Your task to perform on an android device: open device folders in google photos Image 0: 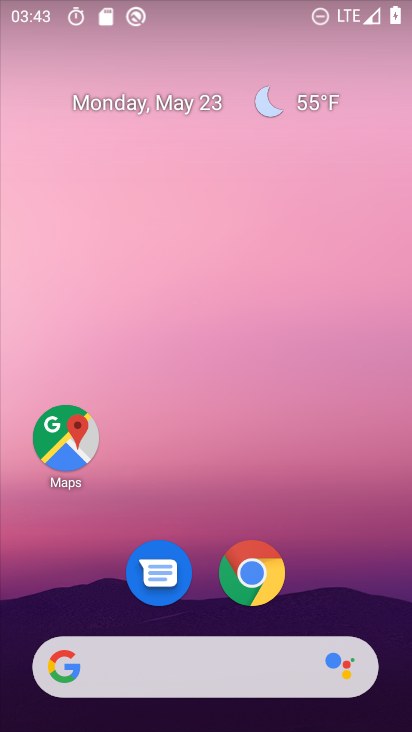
Step 0: drag from (332, 578) to (282, 17)
Your task to perform on an android device: open device folders in google photos Image 1: 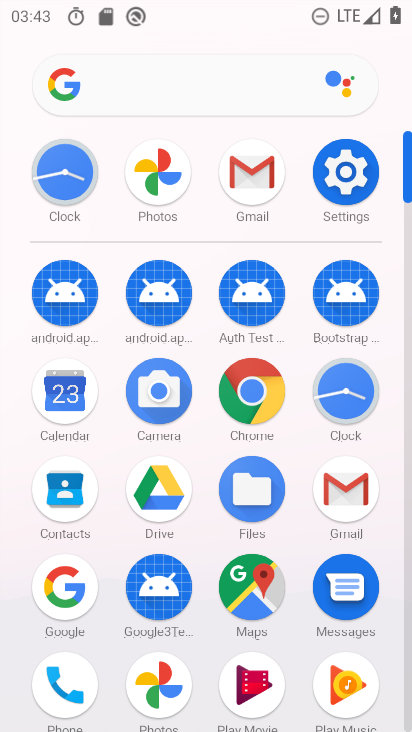
Step 1: click (156, 189)
Your task to perform on an android device: open device folders in google photos Image 2: 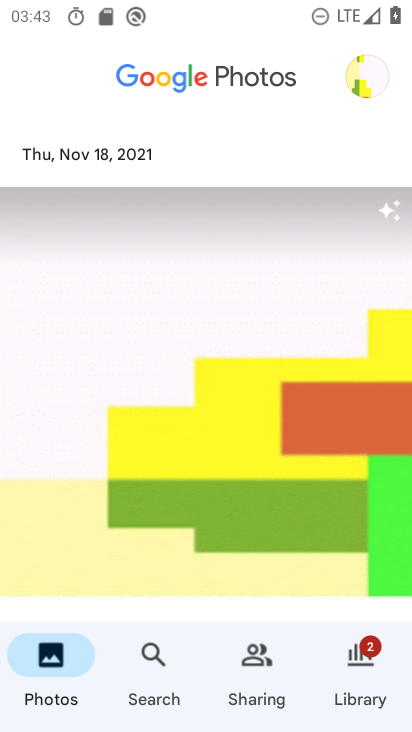
Step 2: click (364, 69)
Your task to perform on an android device: open device folders in google photos Image 3: 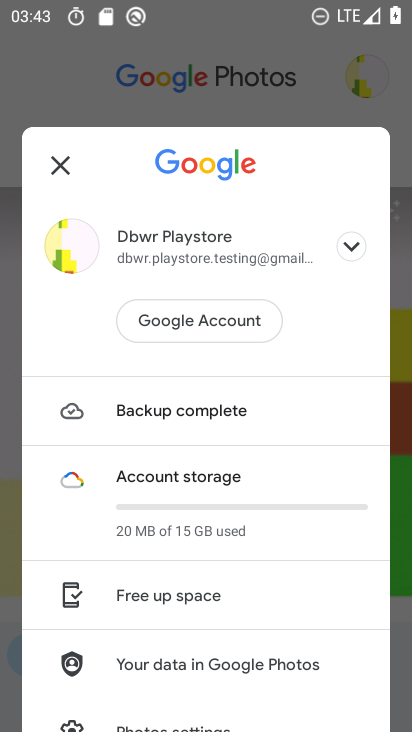
Step 3: drag from (235, 674) to (268, 461)
Your task to perform on an android device: open device folders in google photos Image 4: 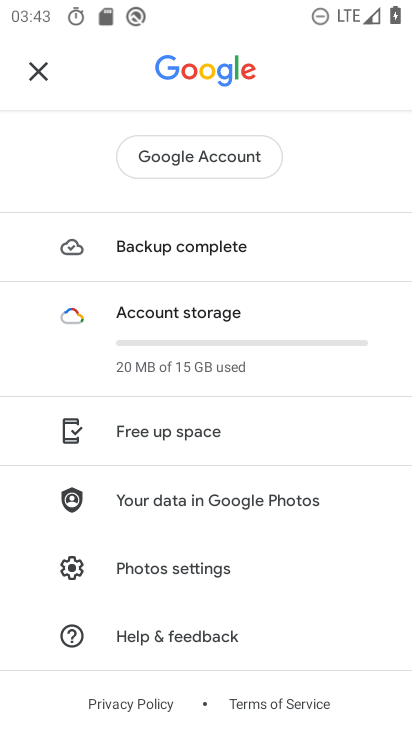
Step 4: click (40, 66)
Your task to perform on an android device: open device folders in google photos Image 5: 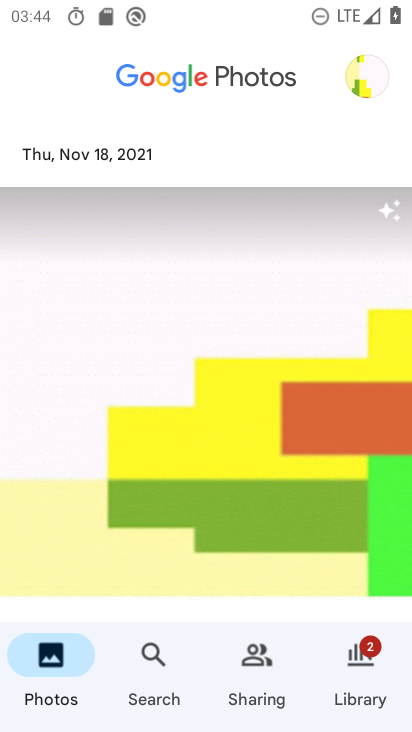
Step 5: task complete